Your task to perform on an android device: Show me productivity apps on the Play Store Image 0: 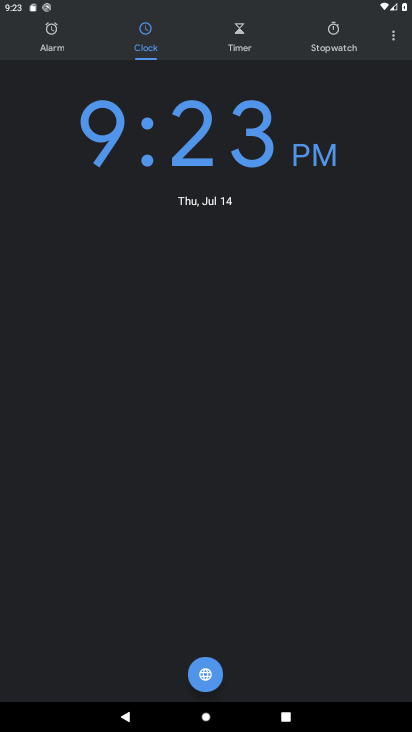
Step 0: press home button
Your task to perform on an android device: Show me productivity apps on the Play Store Image 1: 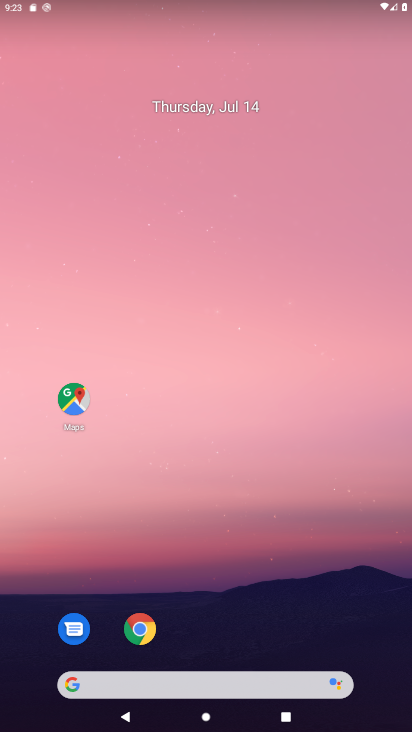
Step 1: drag from (262, 624) to (282, 58)
Your task to perform on an android device: Show me productivity apps on the Play Store Image 2: 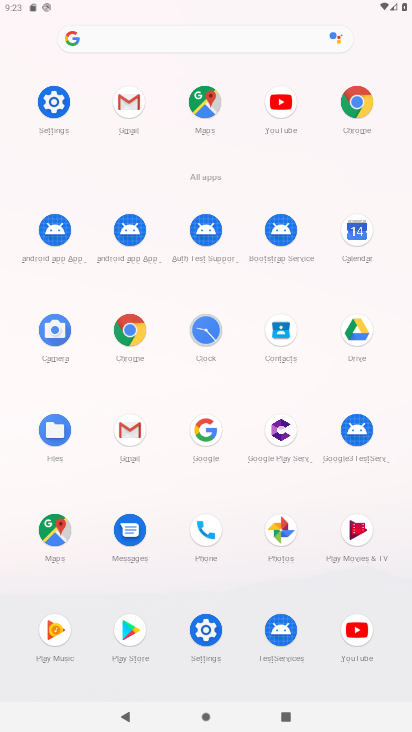
Step 2: click (126, 635)
Your task to perform on an android device: Show me productivity apps on the Play Store Image 3: 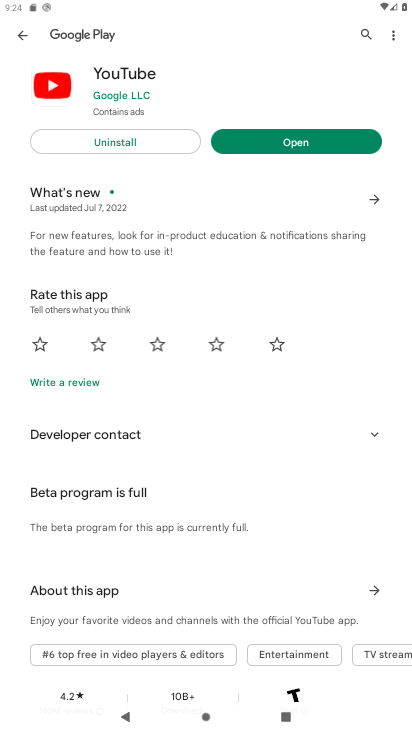
Step 3: click (17, 30)
Your task to perform on an android device: Show me productivity apps on the Play Store Image 4: 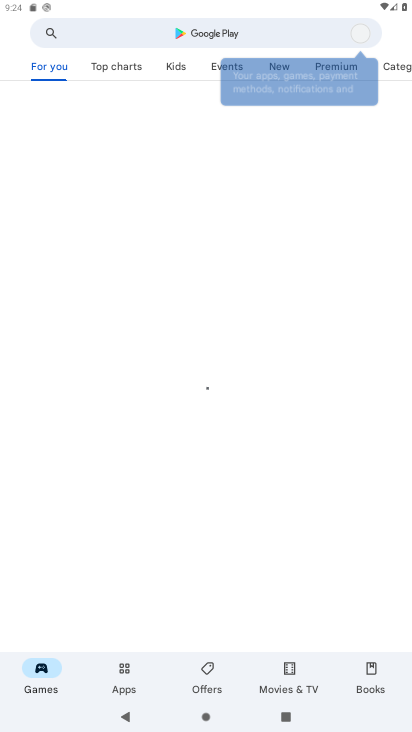
Step 4: click (100, 32)
Your task to perform on an android device: Show me productivity apps on the Play Store Image 5: 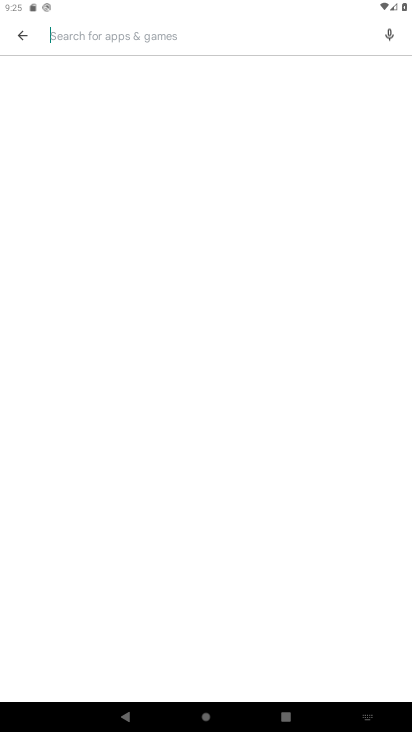
Step 5: type "productivity  apps"
Your task to perform on an android device: Show me productivity apps on the Play Store Image 6: 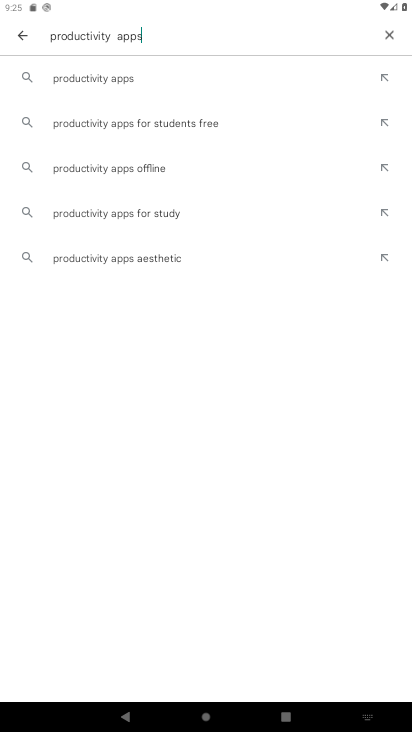
Step 6: click (96, 75)
Your task to perform on an android device: Show me productivity apps on the Play Store Image 7: 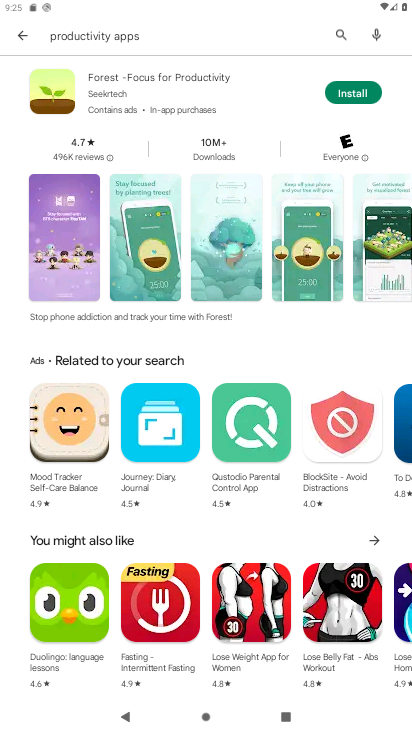
Step 7: task complete